Your task to perform on an android device: Open internet settings Image 0: 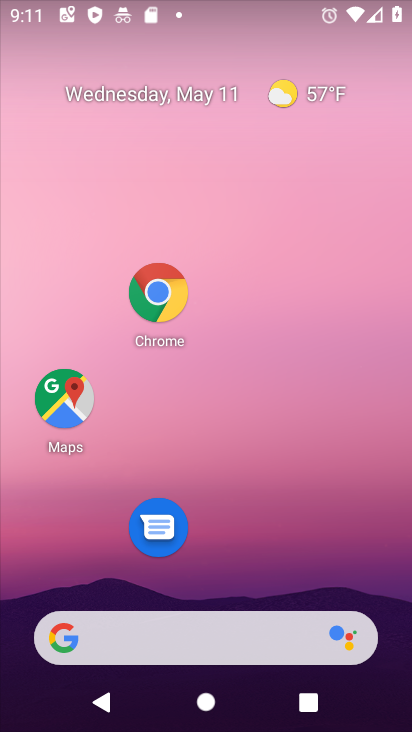
Step 0: drag from (348, 478) to (339, 6)
Your task to perform on an android device: Open internet settings Image 1: 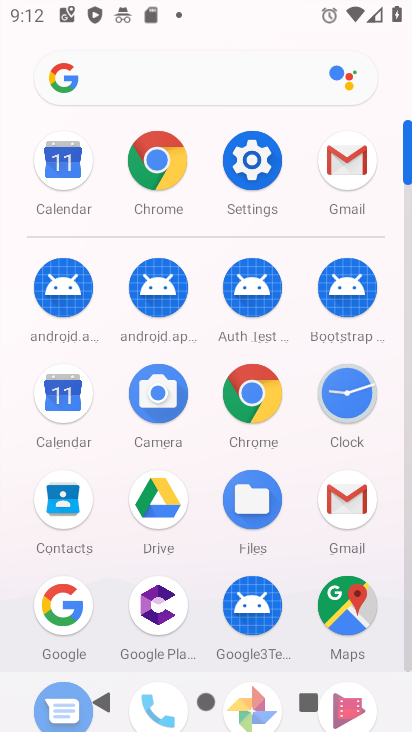
Step 1: click (251, 169)
Your task to perform on an android device: Open internet settings Image 2: 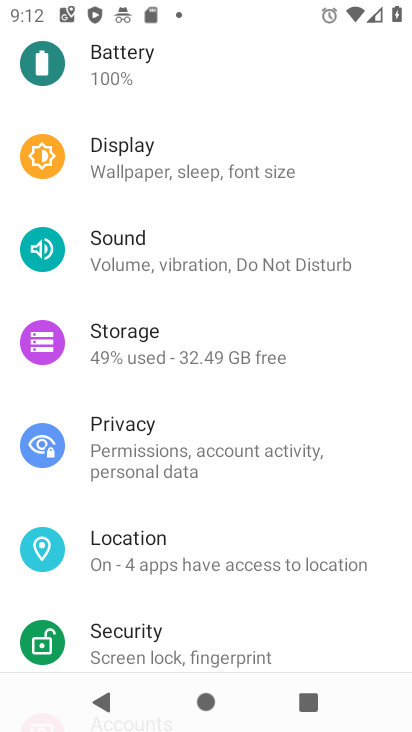
Step 2: drag from (300, 142) to (275, 533)
Your task to perform on an android device: Open internet settings Image 3: 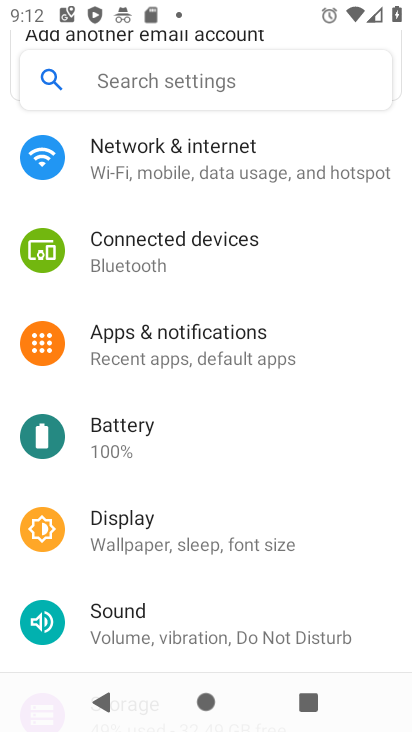
Step 3: click (153, 171)
Your task to perform on an android device: Open internet settings Image 4: 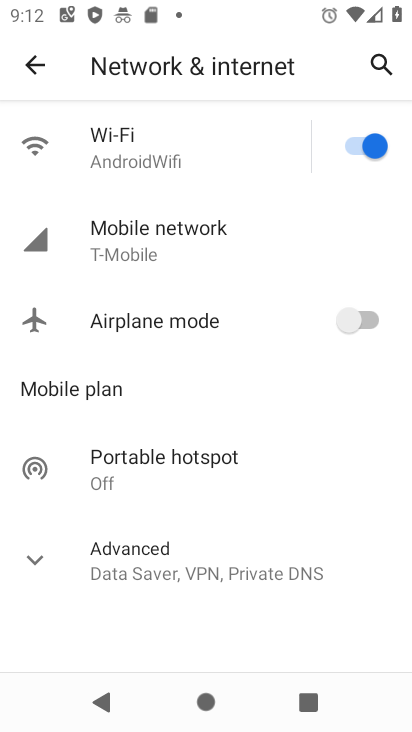
Step 4: click (32, 572)
Your task to perform on an android device: Open internet settings Image 5: 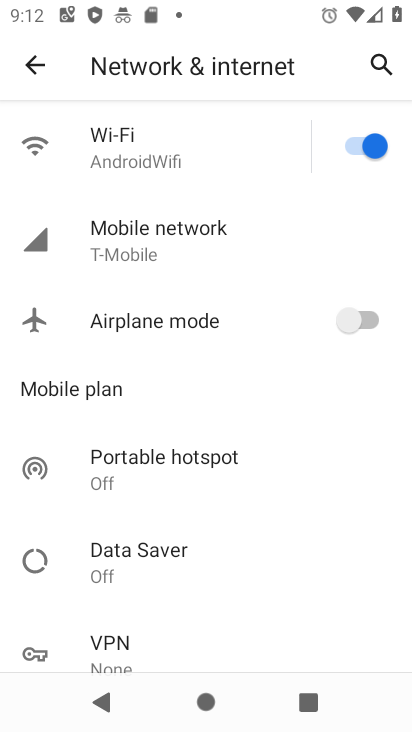
Step 5: task complete